Your task to perform on an android device: Search for pizza restaurants on Maps Image 0: 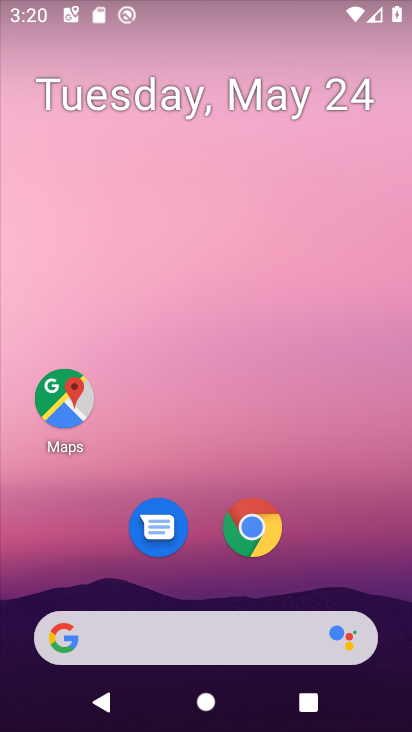
Step 0: click (60, 395)
Your task to perform on an android device: Search for pizza restaurants on Maps Image 1: 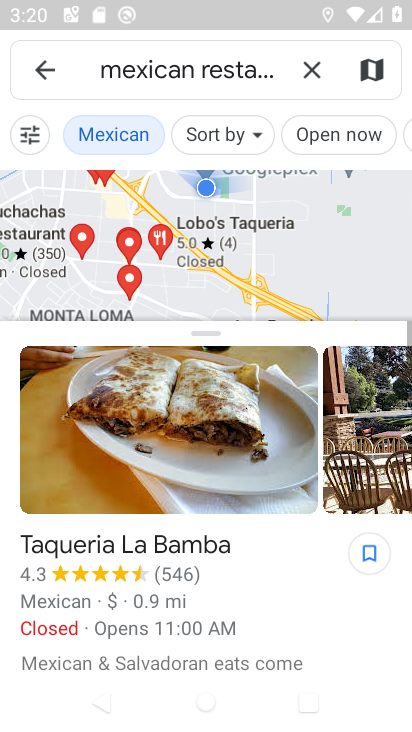
Step 1: click (311, 66)
Your task to perform on an android device: Search for pizza restaurants on Maps Image 2: 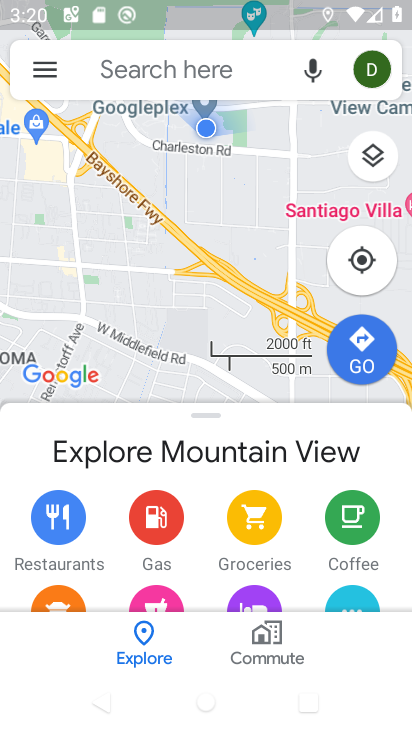
Step 2: click (105, 72)
Your task to perform on an android device: Search for pizza restaurants on Maps Image 3: 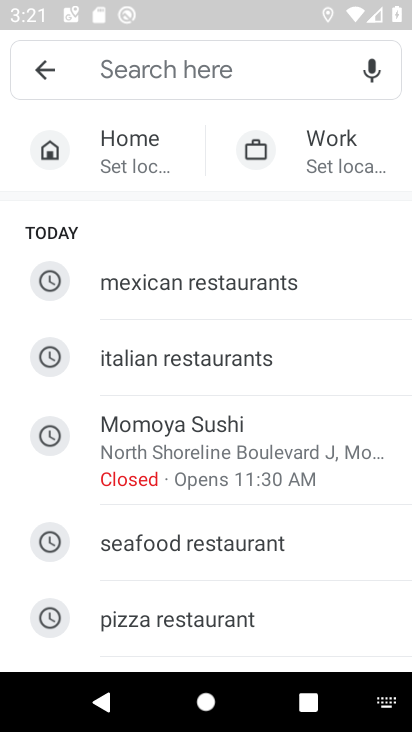
Step 3: type "pizza restaurants "
Your task to perform on an android device: Search for pizza restaurants on Maps Image 4: 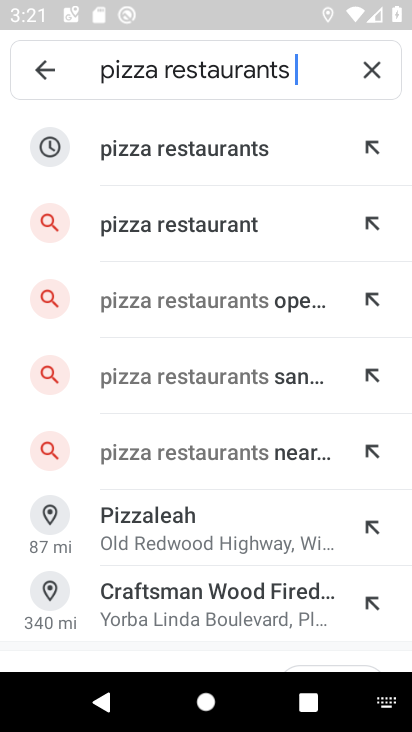
Step 4: click (159, 220)
Your task to perform on an android device: Search for pizza restaurants on Maps Image 5: 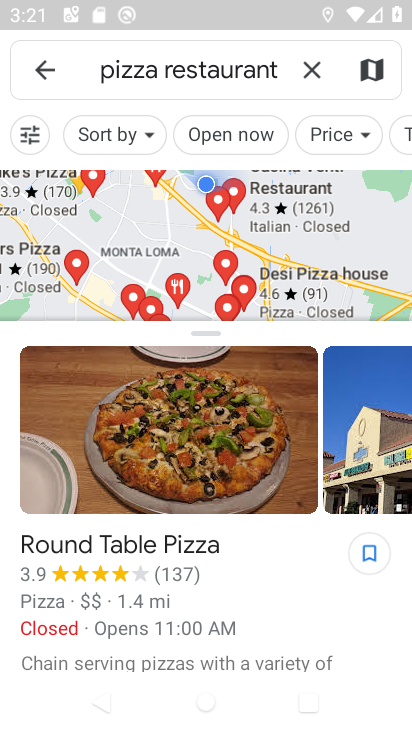
Step 5: task complete